Your task to perform on an android device: stop showing notifications on the lock screen Image 0: 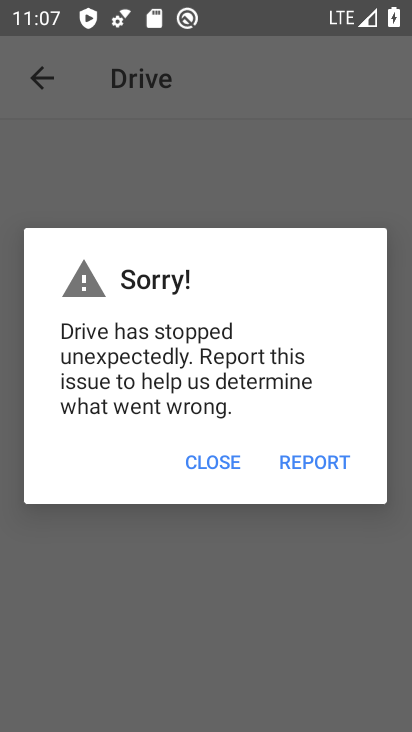
Step 0: press home button
Your task to perform on an android device: stop showing notifications on the lock screen Image 1: 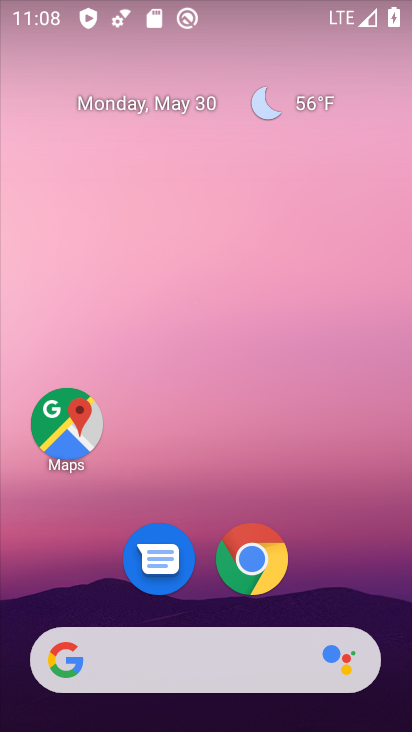
Step 1: drag from (378, 577) to (305, 11)
Your task to perform on an android device: stop showing notifications on the lock screen Image 2: 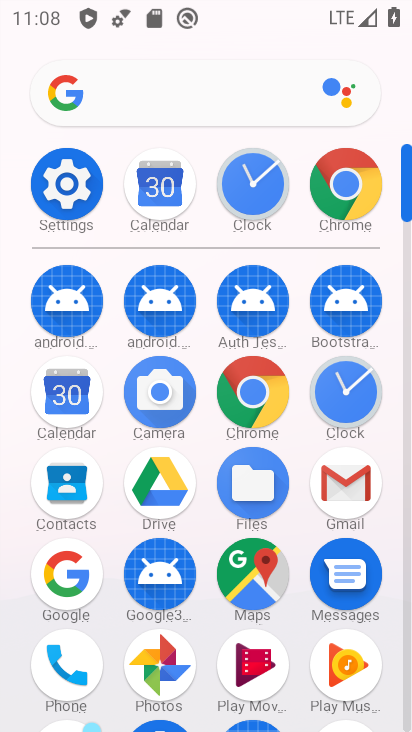
Step 2: click (74, 194)
Your task to perform on an android device: stop showing notifications on the lock screen Image 3: 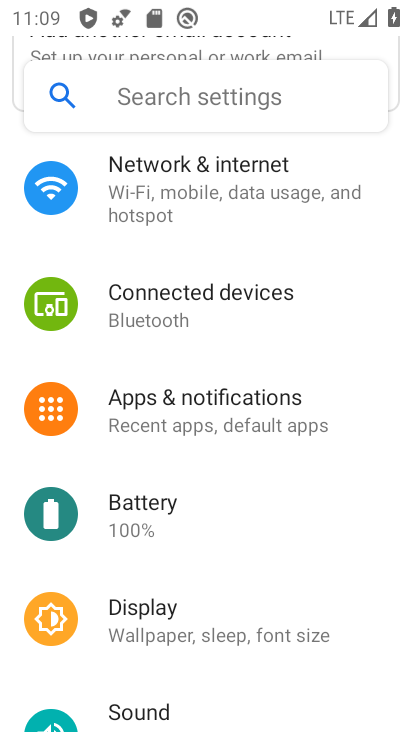
Step 3: click (283, 395)
Your task to perform on an android device: stop showing notifications on the lock screen Image 4: 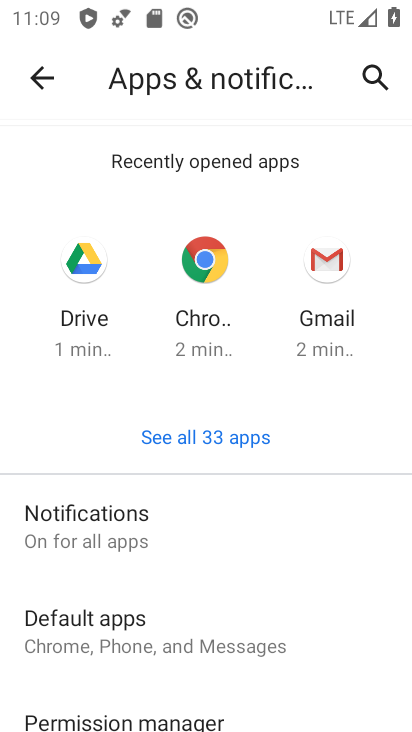
Step 4: click (283, 529)
Your task to perform on an android device: stop showing notifications on the lock screen Image 5: 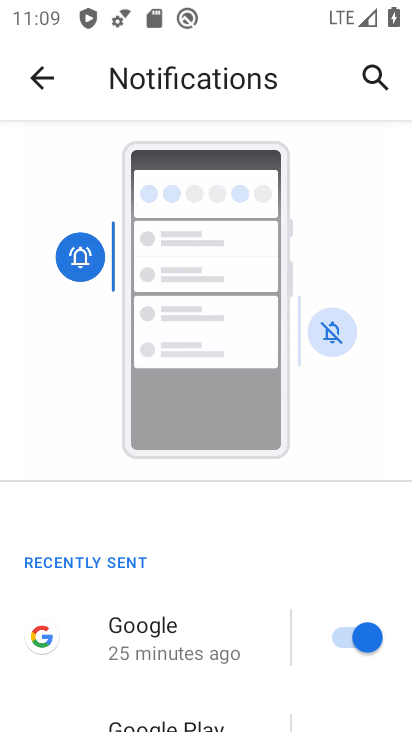
Step 5: drag from (216, 572) to (149, 98)
Your task to perform on an android device: stop showing notifications on the lock screen Image 6: 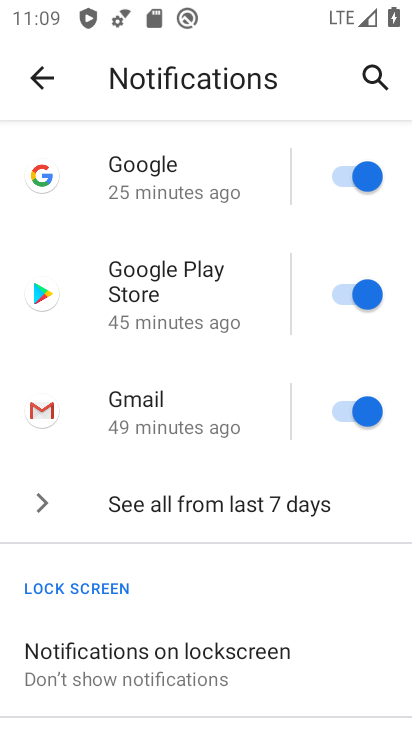
Step 6: click (197, 683)
Your task to perform on an android device: stop showing notifications on the lock screen Image 7: 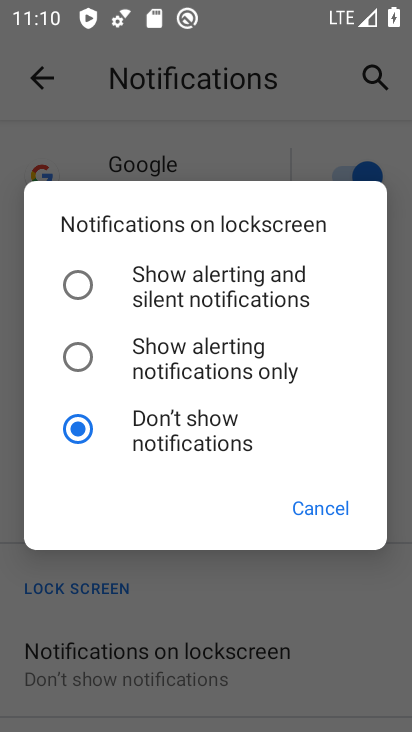
Step 7: task complete